Your task to perform on an android device: Open the calendar and show me this week's events? Image 0: 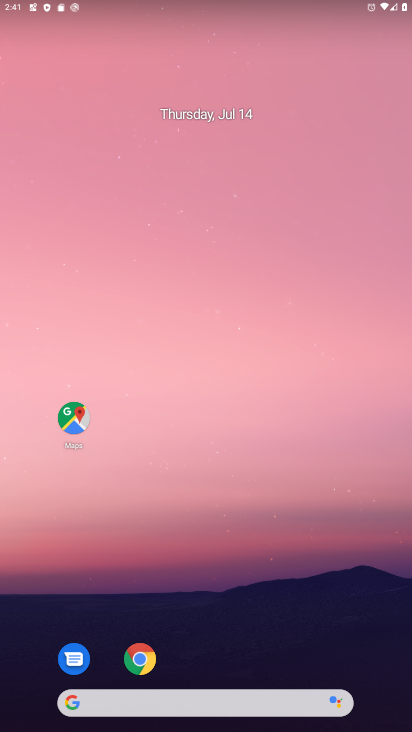
Step 0: press home button
Your task to perform on an android device: Open the calendar and show me this week's events? Image 1: 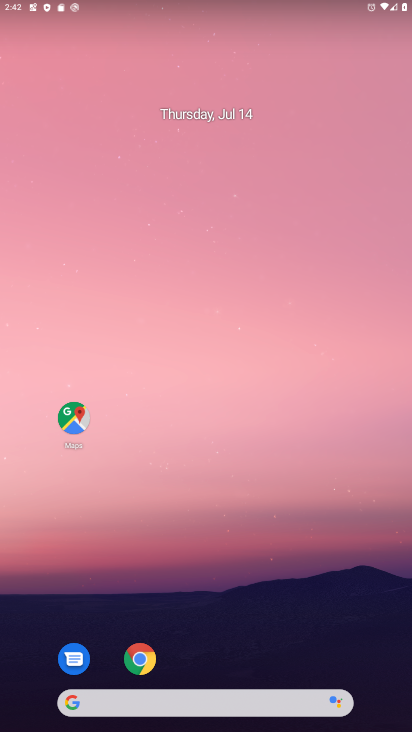
Step 1: drag from (252, 613) to (309, 2)
Your task to perform on an android device: Open the calendar and show me this week's events? Image 2: 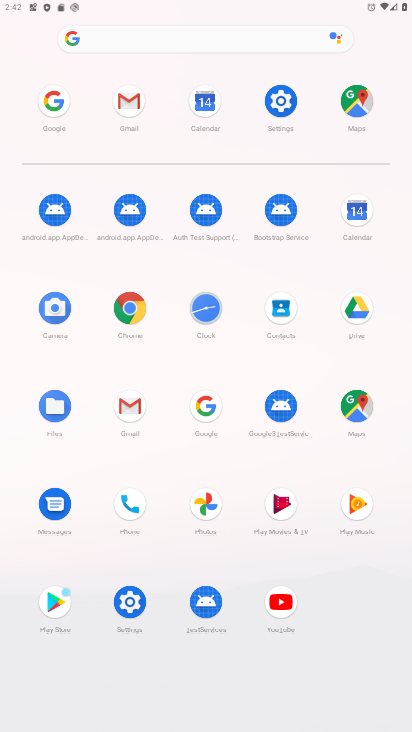
Step 2: click (358, 232)
Your task to perform on an android device: Open the calendar and show me this week's events? Image 3: 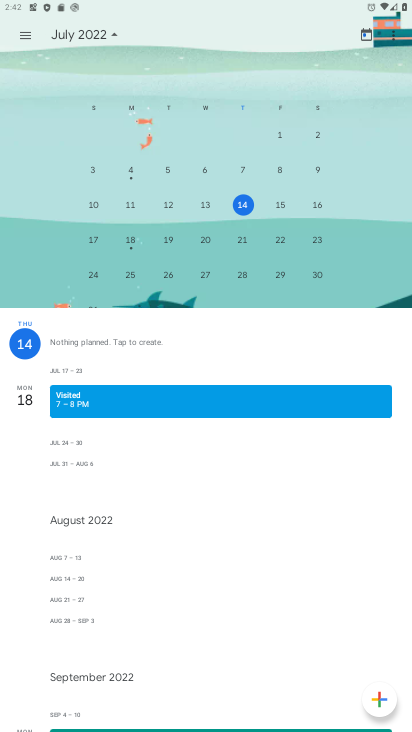
Step 3: click (30, 38)
Your task to perform on an android device: Open the calendar and show me this week's events? Image 4: 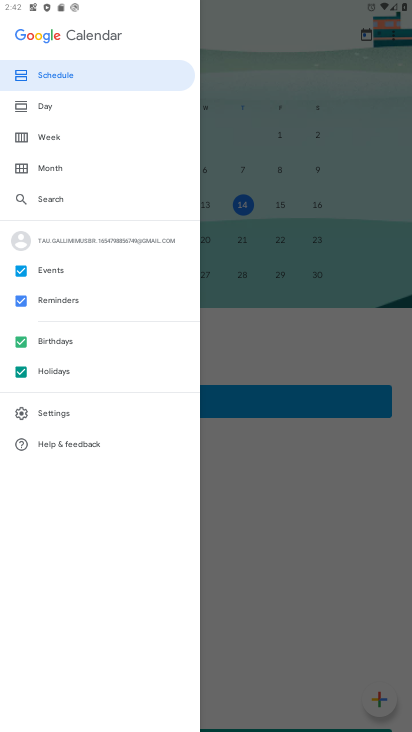
Step 4: click (43, 143)
Your task to perform on an android device: Open the calendar and show me this week's events? Image 5: 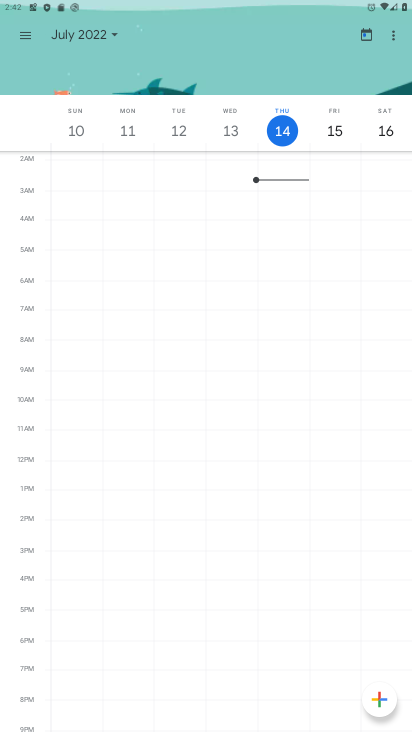
Step 5: task complete